Your task to perform on an android device: clear all cookies in the chrome app Image 0: 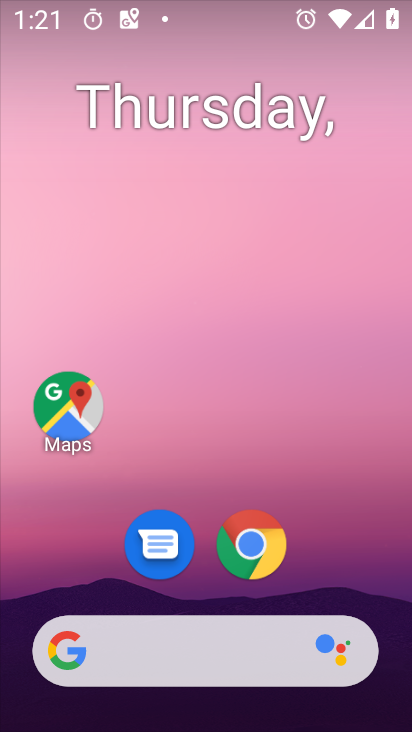
Step 0: press back button
Your task to perform on an android device: clear all cookies in the chrome app Image 1: 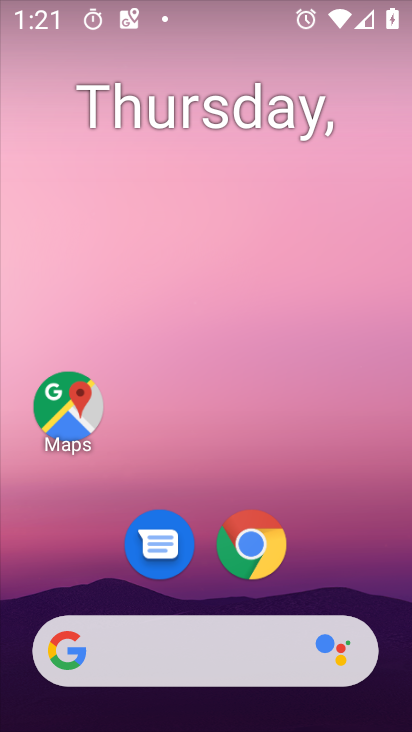
Step 1: click (234, 581)
Your task to perform on an android device: clear all cookies in the chrome app Image 2: 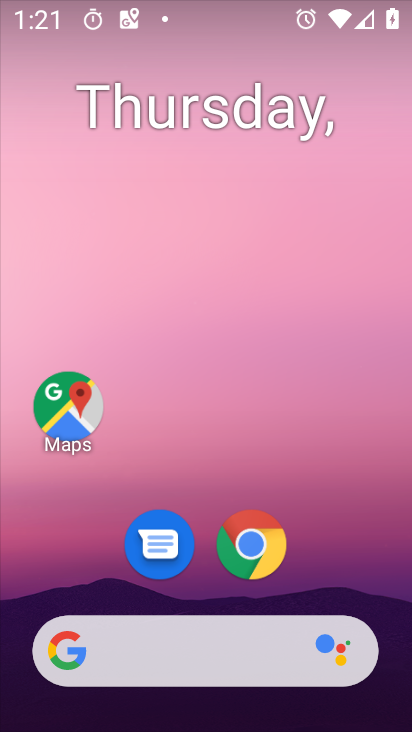
Step 2: click (244, 540)
Your task to perform on an android device: clear all cookies in the chrome app Image 3: 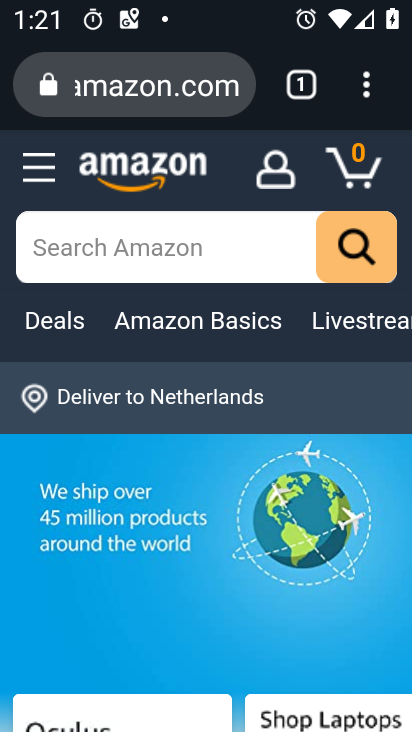
Step 3: click (368, 85)
Your task to perform on an android device: clear all cookies in the chrome app Image 4: 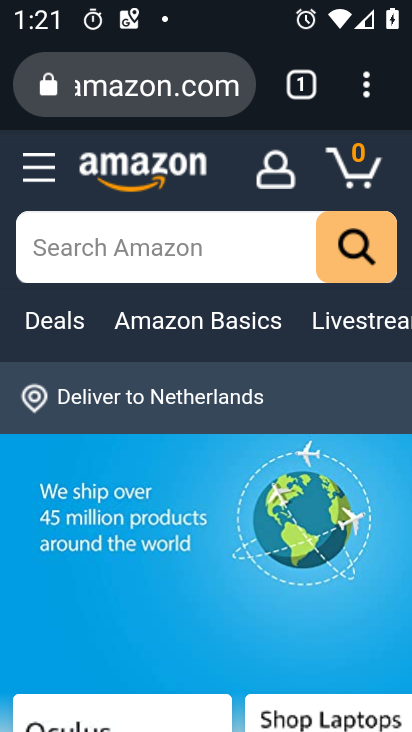
Step 4: click (356, 94)
Your task to perform on an android device: clear all cookies in the chrome app Image 5: 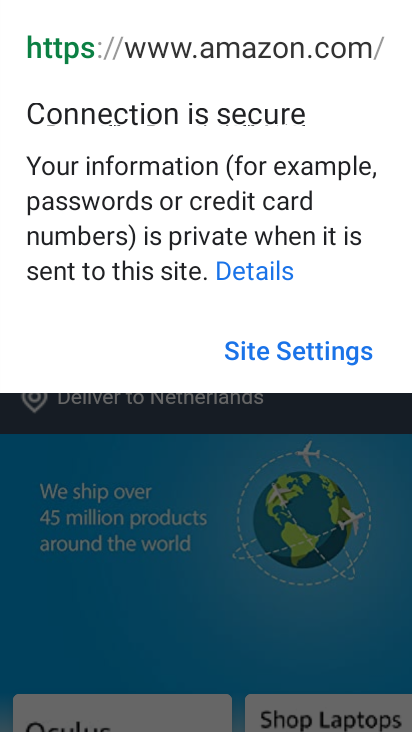
Step 5: press back button
Your task to perform on an android device: clear all cookies in the chrome app Image 6: 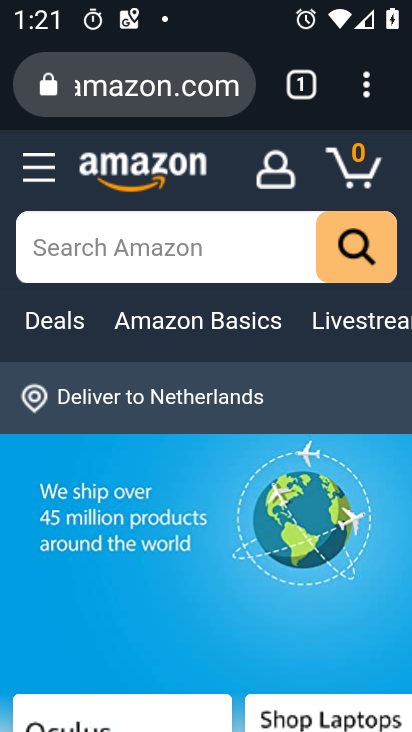
Step 6: click (364, 91)
Your task to perform on an android device: clear all cookies in the chrome app Image 7: 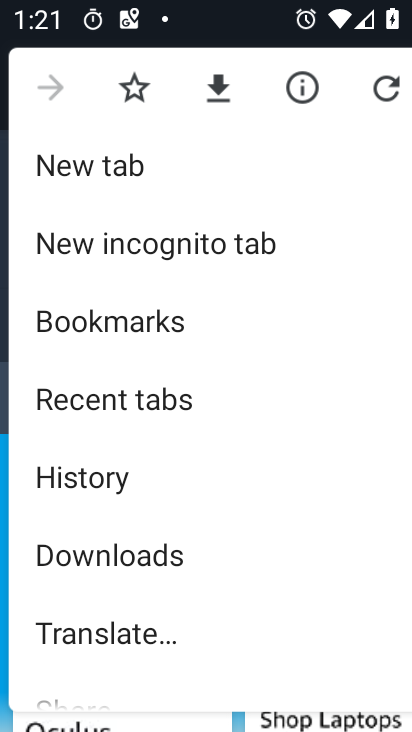
Step 7: click (129, 478)
Your task to perform on an android device: clear all cookies in the chrome app Image 8: 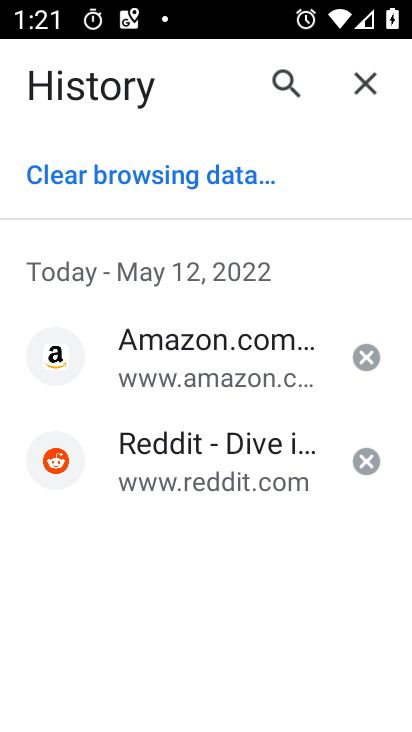
Step 8: click (153, 191)
Your task to perform on an android device: clear all cookies in the chrome app Image 9: 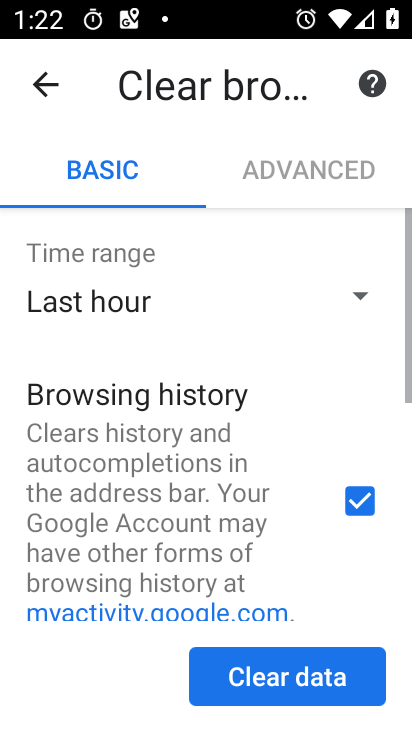
Step 9: drag from (234, 583) to (361, 173)
Your task to perform on an android device: clear all cookies in the chrome app Image 10: 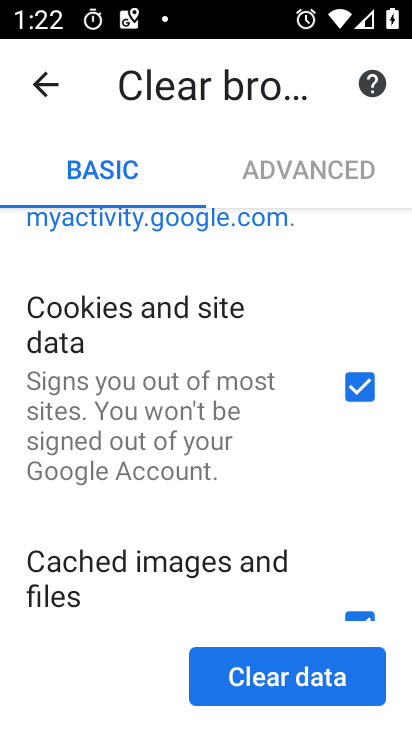
Step 10: drag from (183, 279) to (118, 670)
Your task to perform on an android device: clear all cookies in the chrome app Image 11: 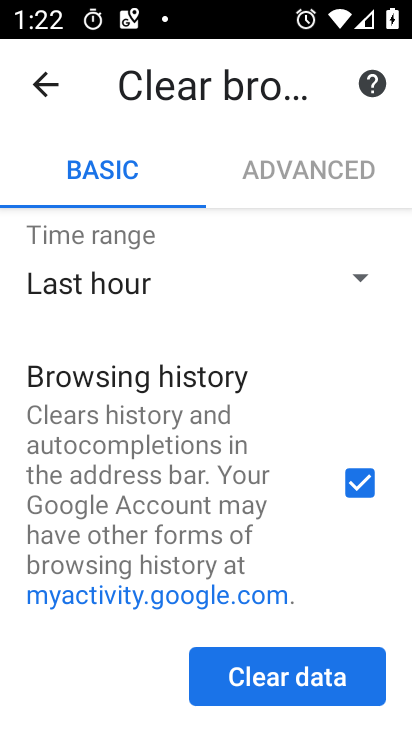
Step 11: click (348, 480)
Your task to perform on an android device: clear all cookies in the chrome app Image 12: 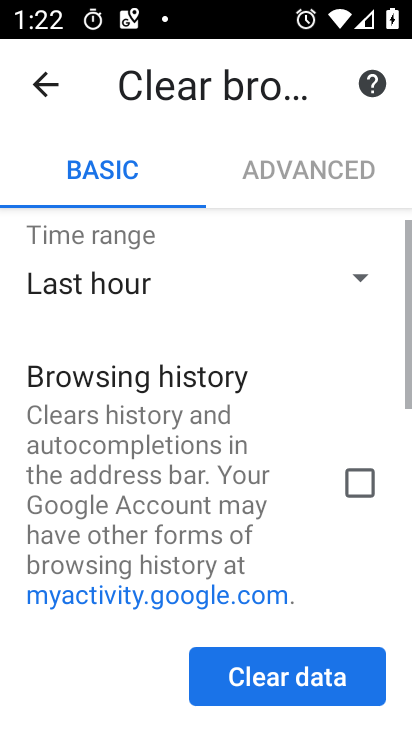
Step 12: drag from (9, 480) to (287, 96)
Your task to perform on an android device: clear all cookies in the chrome app Image 13: 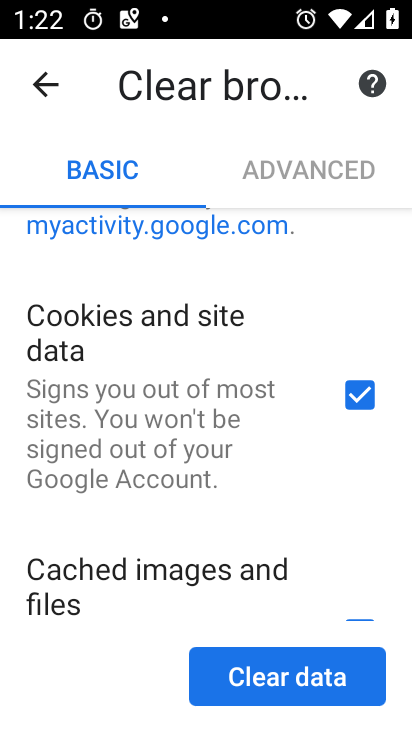
Step 13: drag from (0, 563) to (307, 231)
Your task to perform on an android device: clear all cookies in the chrome app Image 14: 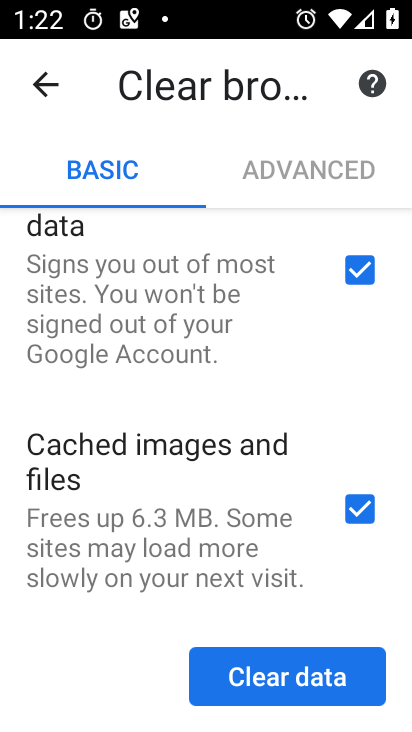
Step 14: click (368, 521)
Your task to perform on an android device: clear all cookies in the chrome app Image 15: 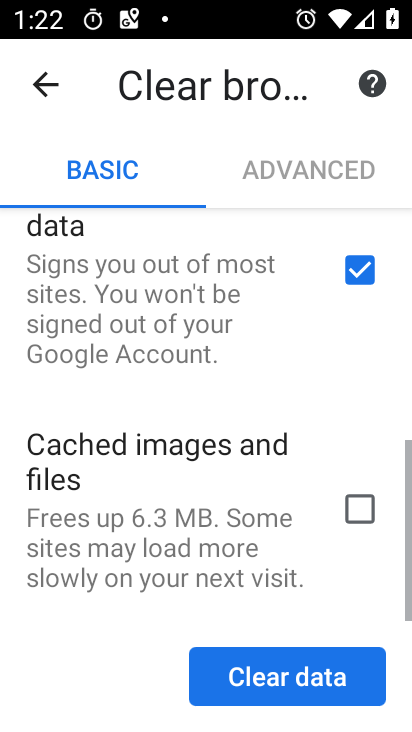
Step 15: click (320, 664)
Your task to perform on an android device: clear all cookies in the chrome app Image 16: 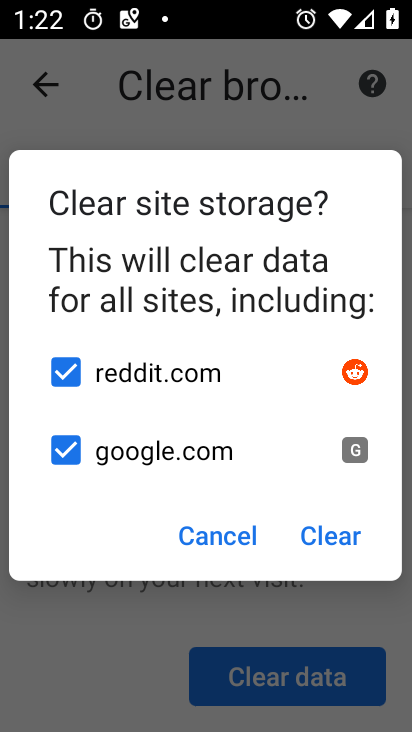
Step 16: click (332, 545)
Your task to perform on an android device: clear all cookies in the chrome app Image 17: 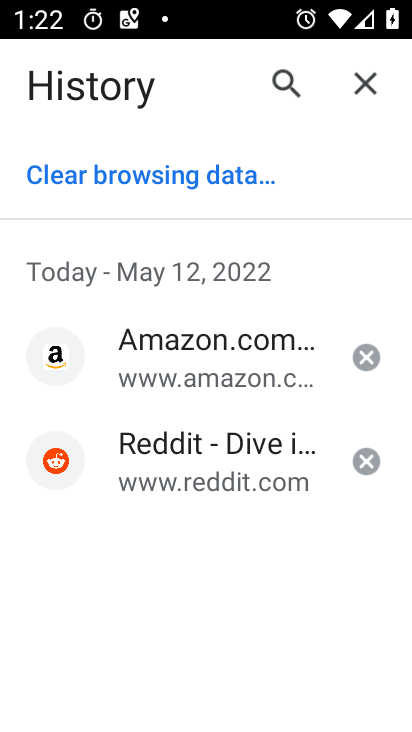
Step 17: task complete